Your task to perform on an android device: Do I have any events this weekend? Image 0: 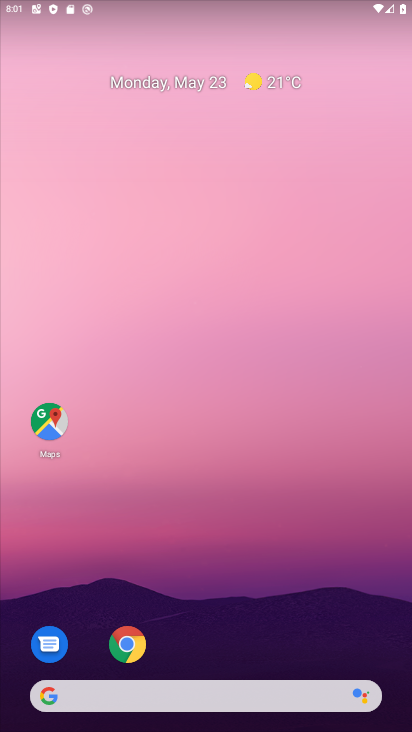
Step 0: drag from (218, 702) to (127, 147)
Your task to perform on an android device: Do I have any events this weekend? Image 1: 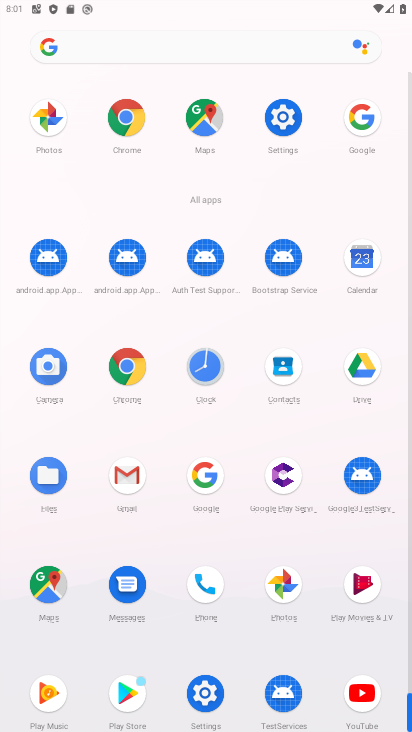
Step 1: click (366, 248)
Your task to perform on an android device: Do I have any events this weekend? Image 2: 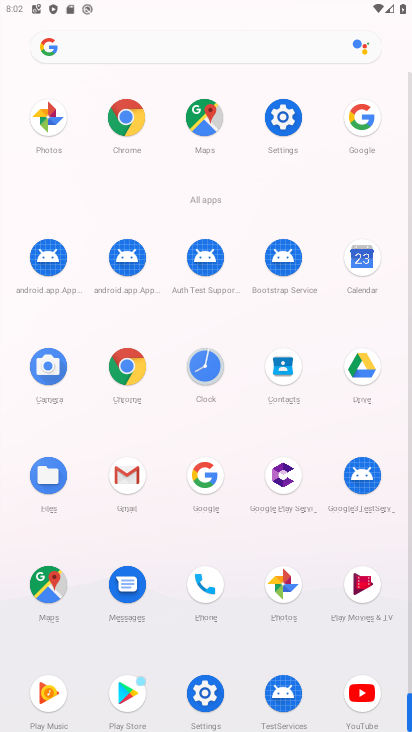
Step 2: click (373, 258)
Your task to perform on an android device: Do I have any events this weekend? Image 3: 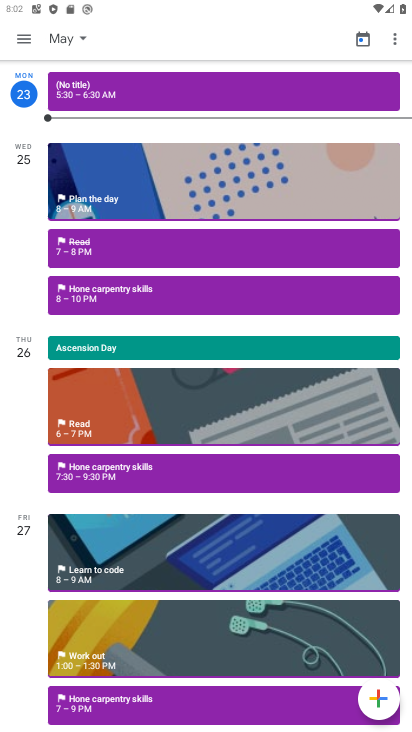
Step 3: click (62, 43)
Your task to perform on an android device: Do I have any events this weekend? Image 4: 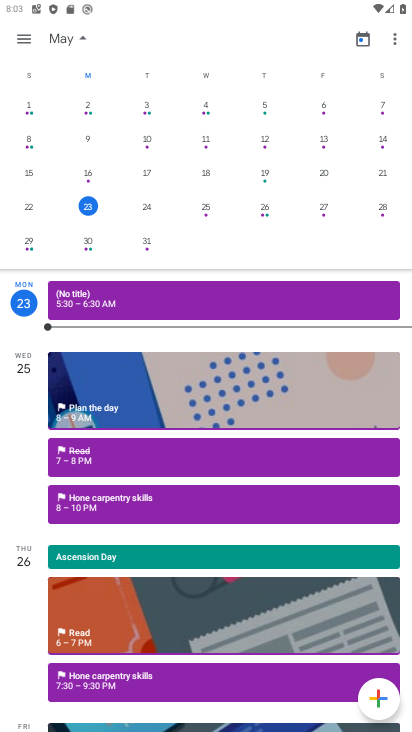
Step 4: click (384, 207)
Your task to perform on an android device: Do I have any events this weekend? Image 5: 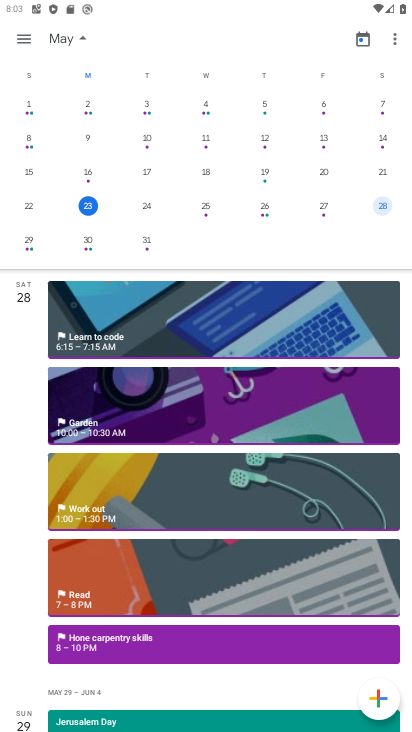
Step 5: task complete